Your task to perform on an android device: toggle location history Image 0: 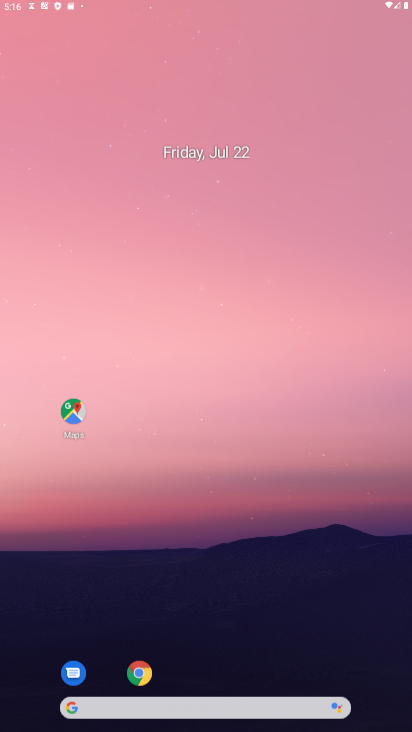
Step 0: press home button
Your task to perform on an android device: toggle location history Image 1: 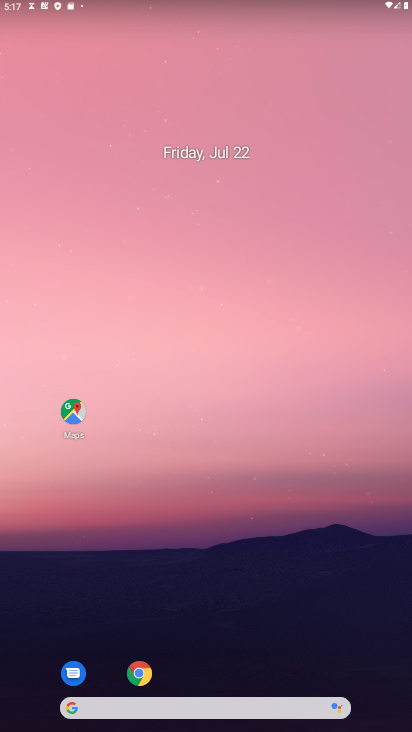
Step 1: drag from (275, 626) to (258, 253)
Your task to perform on an android device: toggle location history Image 2: 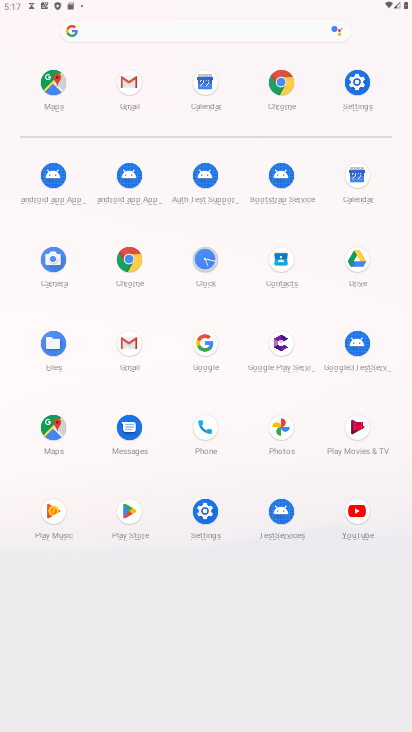
Step 2: click (359, 74)
Your task to perform on an android device: toggle location history Image 3: 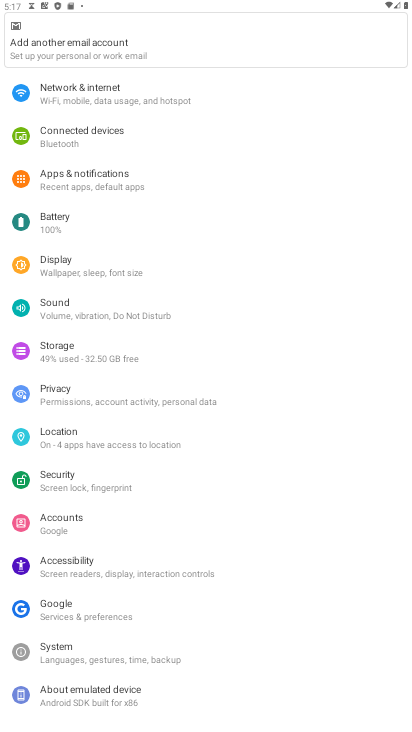
Step 3: click (84, 433)
Your task to perform on an android device: toggle location history Image 4: 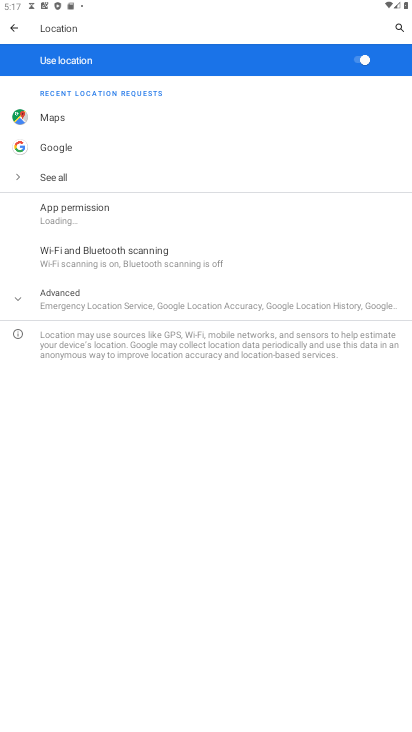
Step 4: click (104, 304)
Your task to perform on an android device: toggle location history Image 5: 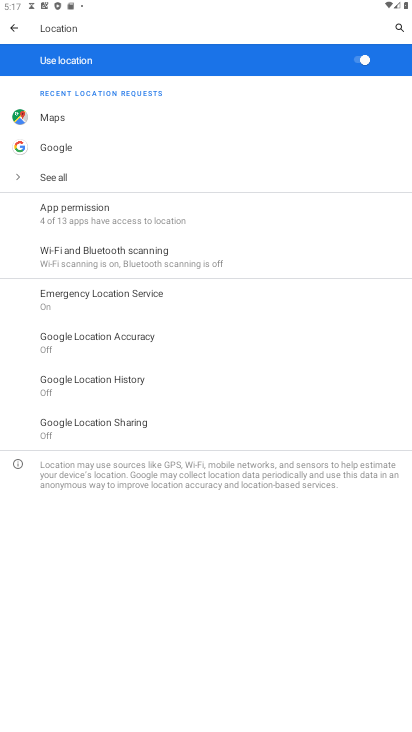
Step 5: click (86, 382)
Your task to perform on an android device: toggle location history Image 6: 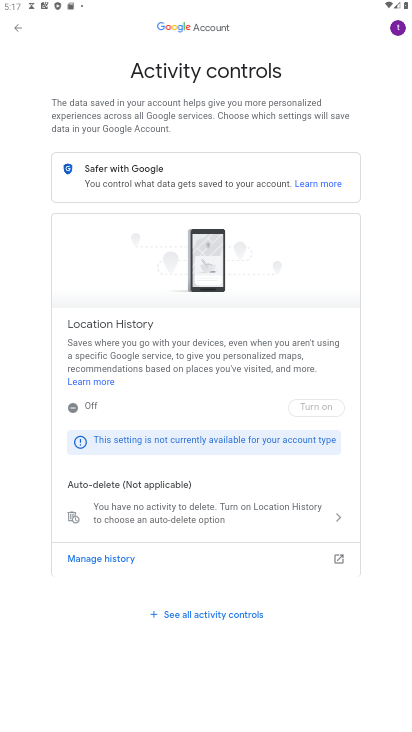
Step 6: click (318, 410)
Your task to perform on an android device: toggle location history Image 7: 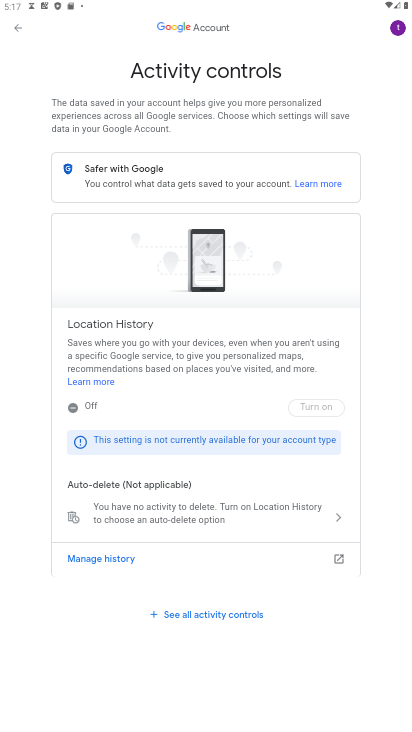
Step 7: click (318, 410)
Your task to perform on an android device: toggle location history Image 8: 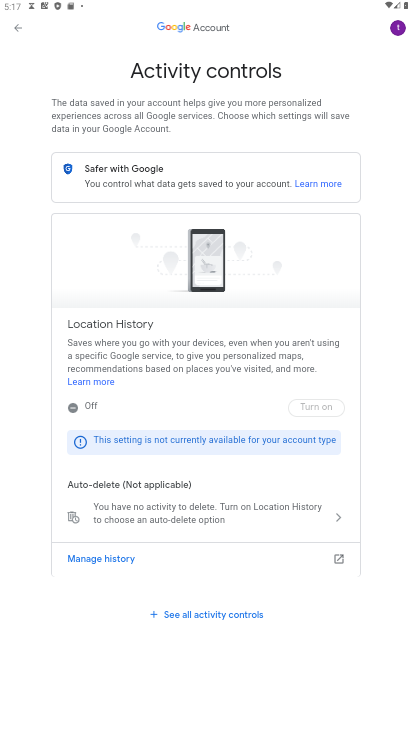
Step 8: click (318, 410)
Your task to perform on an android device: toggle location history Image 9: 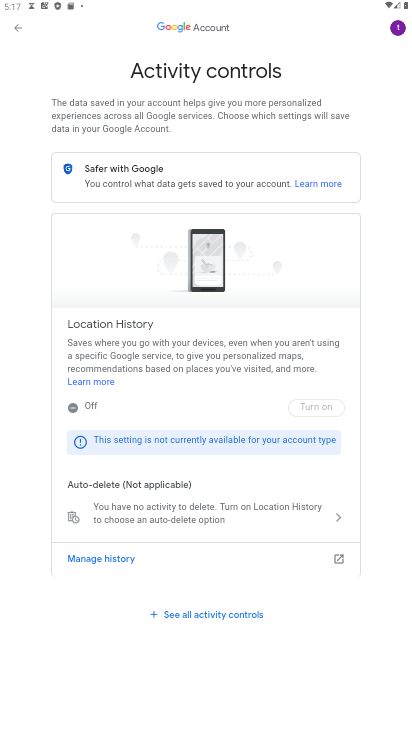
Step 9: drag from (163, 10) to (220, 399)
Your task to perform on an android device: toggle location history Image 10: 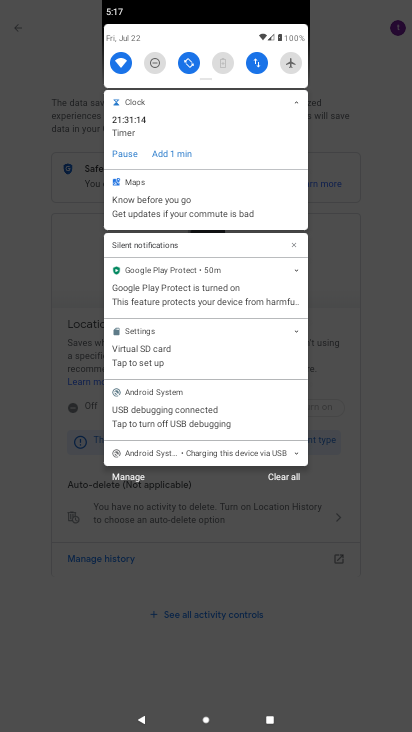
Step 10: drag from (260, 452) to (294, 123)
Your task to perform on an android device: toggle location history Image 11: 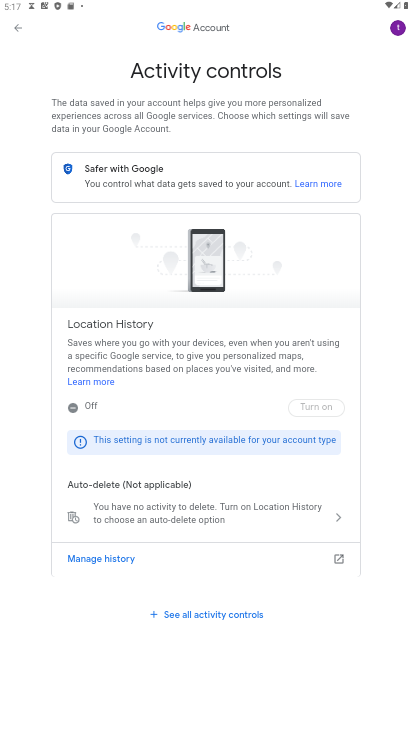
Step 11: click (323, 404)
Your task to perform on an android device: toggle location history Image 12: 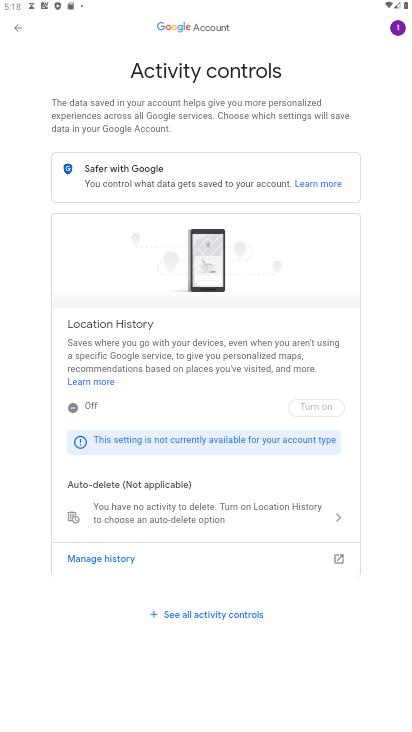
Step 12: task complete